Your task to perform on an android device: check out phone information Image 0: 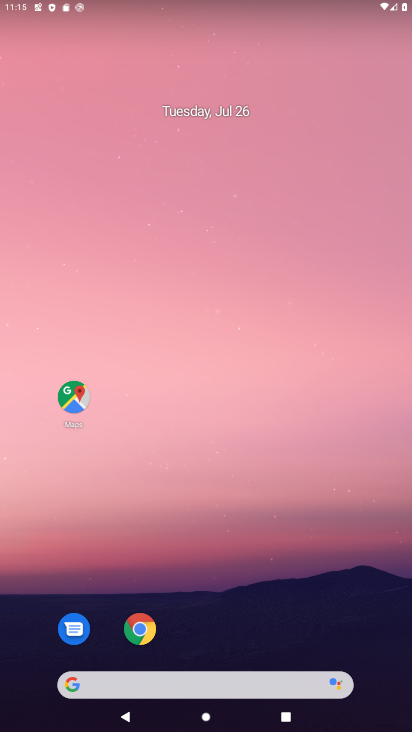
Step 0: drag from (229, 657) to (237, 113)
Your task to perform on an android device: check out phone information Image 1: 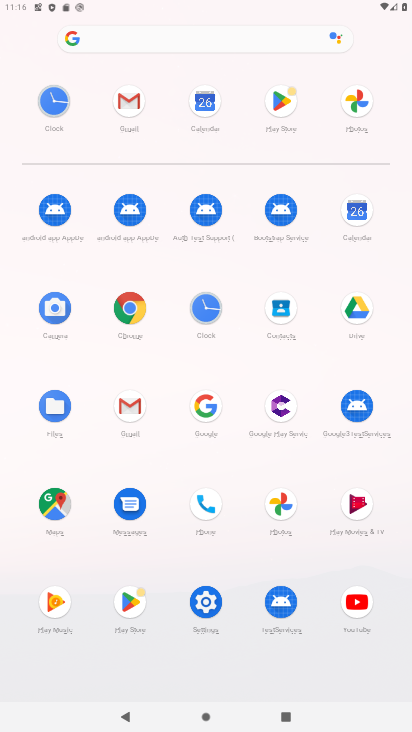
Step 1: click (189, 598)
Your task to perform on an android device: check out phone information Image 2: 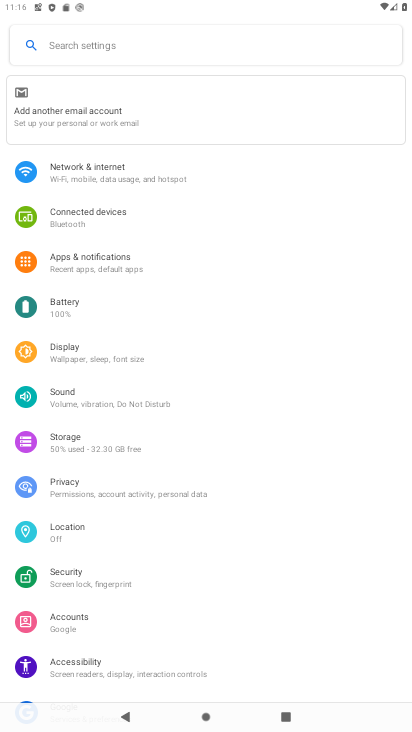
Step 2: task complete